Your task to perform on an android device: Open Yahoo.com Image 0: 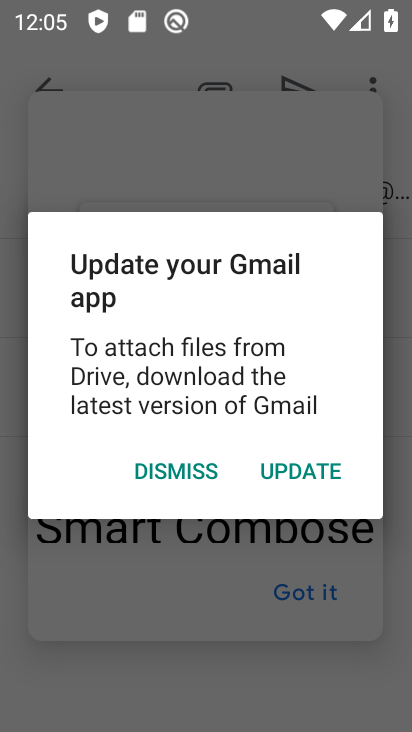
Step 0: press home button
Your task to perform on an android device: Open Yahoo.com Image 1: 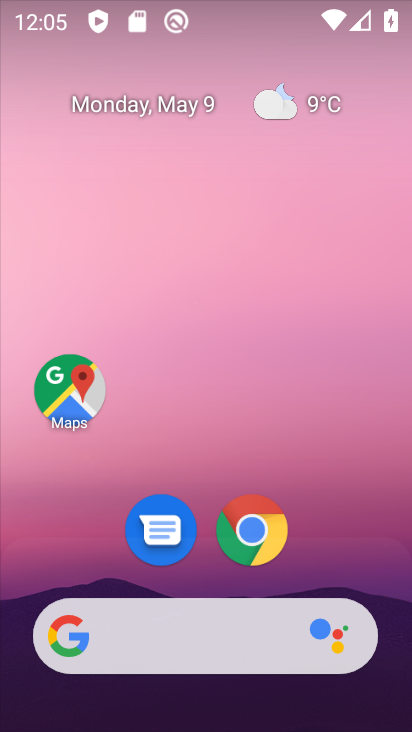
Step 1: drag from (338, 557) to (361, 290)
Your task to perform on an android device: Open Yahoo.com Image 2: 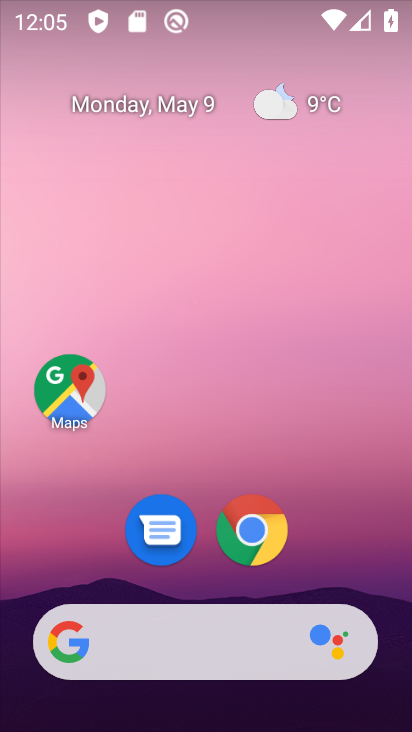
Step 2: drag from (327, 400) to (328, 256)
Your task to perform on an android device: Open Yahoo.com Image 3: 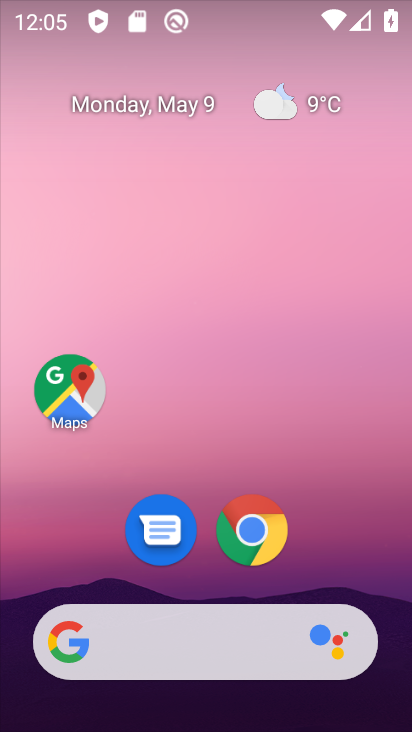
Step 3: drag from (305, 577) to (330, 302)
Your task to perform on an android device: Open Yahoo.com Image 4: 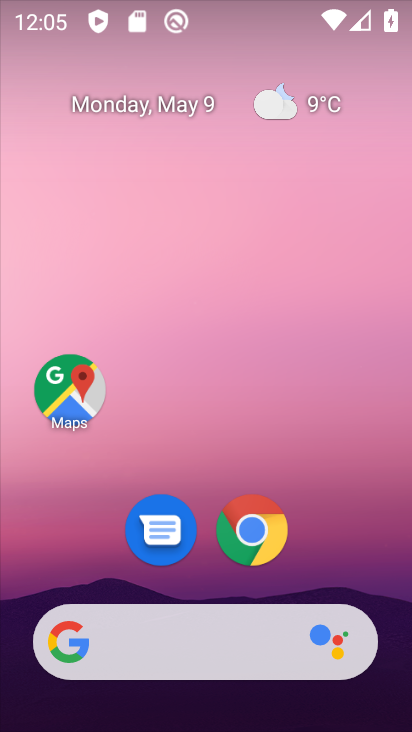
Step 4: drag from (309, 504) to (312, 154)
Your task to perform on an android device: Open Yahoo.com Image 5: 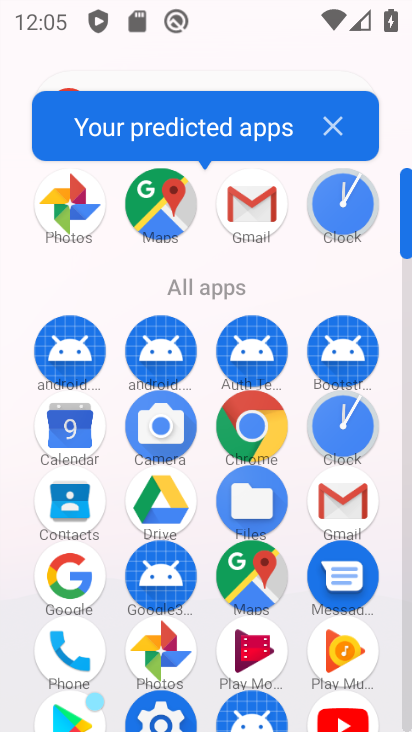
Step 5: click (246, 437)
Your task to perform on an android device: Open Yahoo.com Image 6: 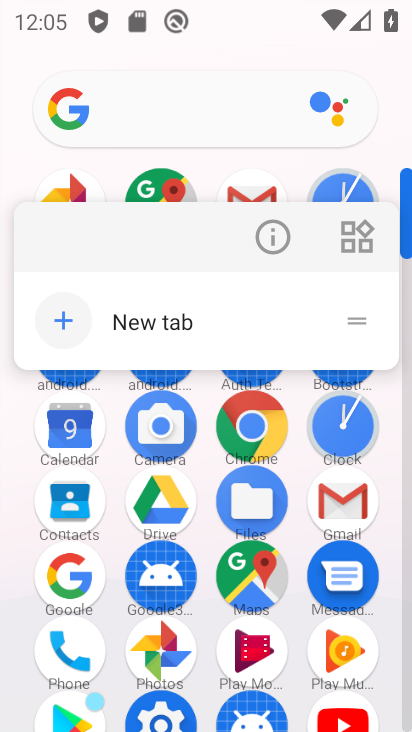
Step 6: click (250, 430)
Your task to perform on an android device: Open Yahoo.com Image 7: 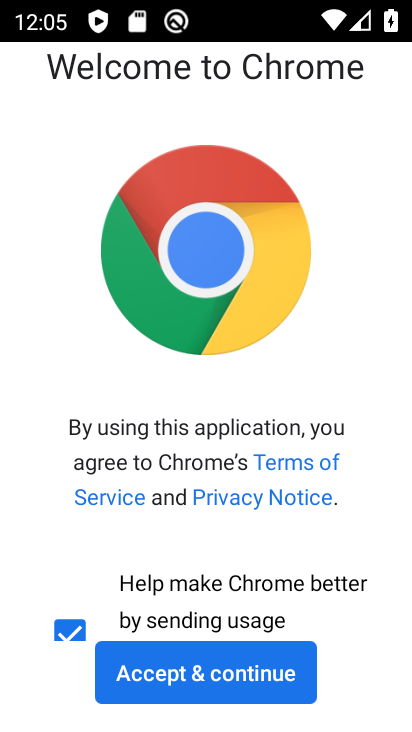
Step 7: click (218, 671)
Your task to perform on an android device: Open Yahoo.com Image 8: 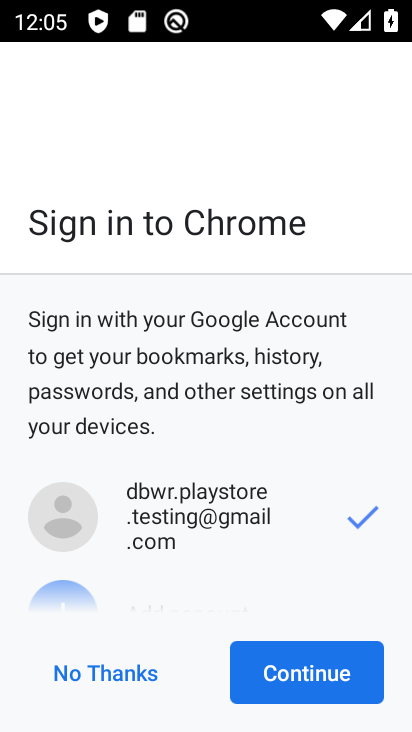
Step 8: click (318, 662)
Your task to perform on an android device: Open Yahoo.com Image 9: 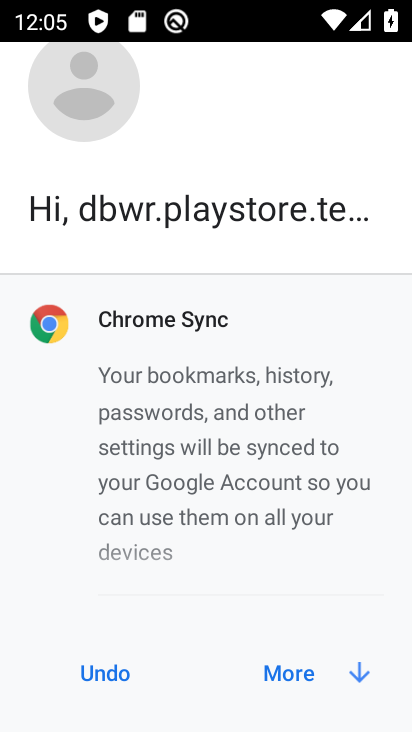
Step 9: click (278, 674)
Your task to perform on an android device: Open Yahoo.com Image 10: 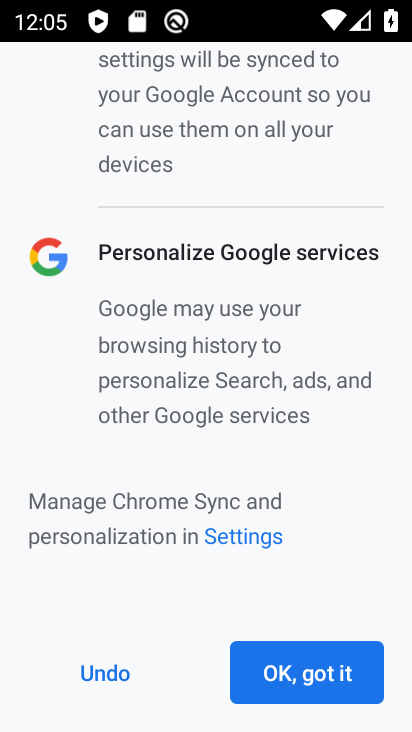
Step 10: click (280, 681)
Your task to perform on an android device: Open Yahoo.com Image 11: 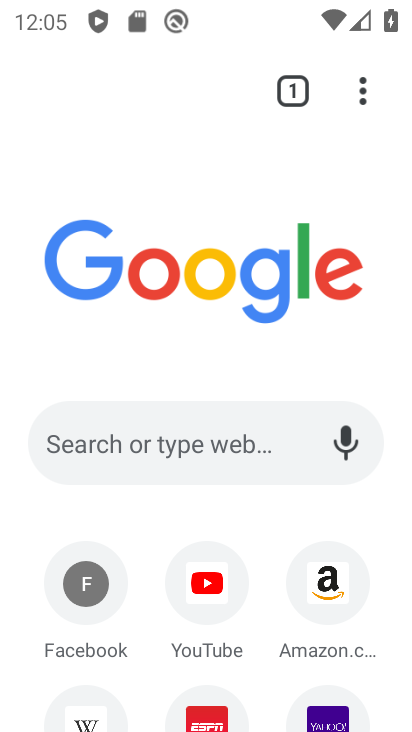
Step 11: drag from (362, 639) to (389, 284)
Your task to perform on an android device: Open Yahoo.com Image 12: 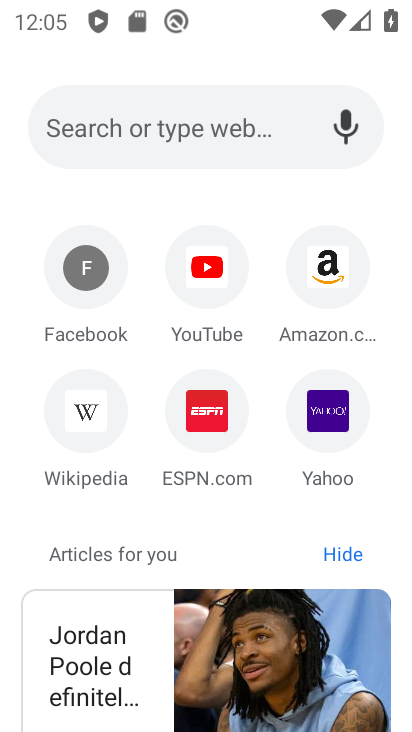
Step 12: click (317, 425)
Your task to perform on an android device: Open Yahoo.com Image 13: 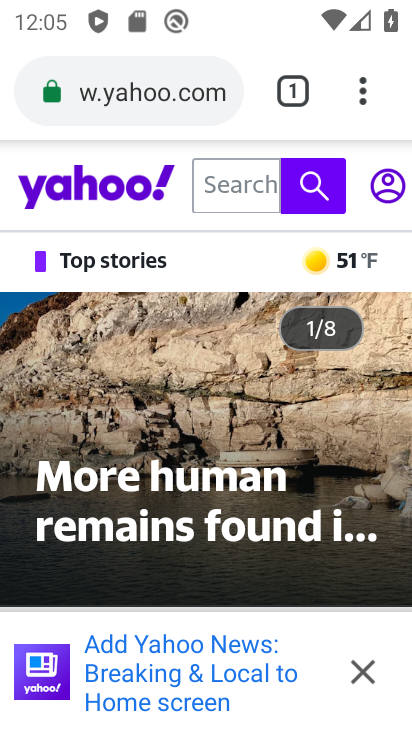
Step 13: task complete